Your task to perform on an android device: add a contact in the contacts app Image 0: 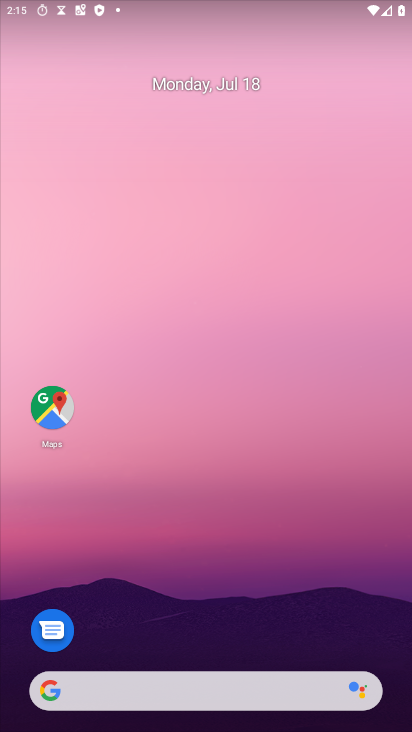
Step 0: drag from (277, 704) to (288, 263)
Your task to perform on an android device: add a contact in the contacts app Image 1: 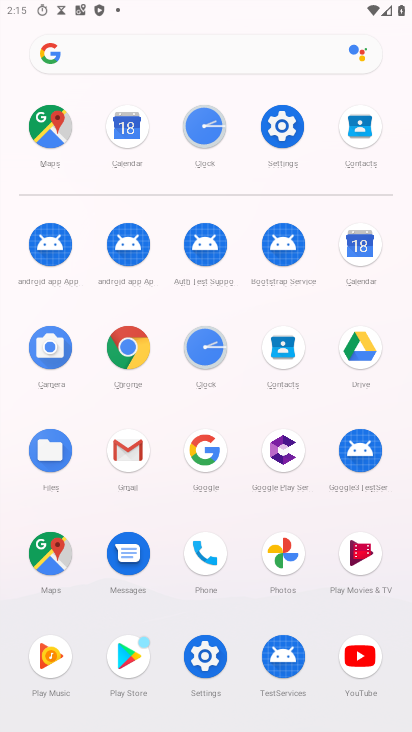
Step 1: click (282, 351)
Your task to perform on an android device: add a contact in the contacts app Image 2: 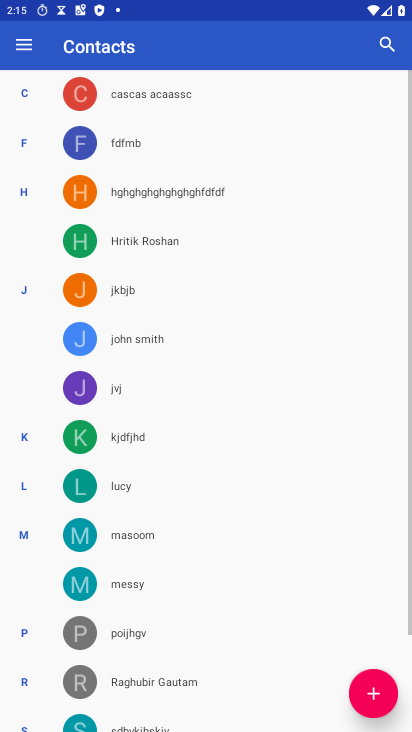
Step 2: click (380, 688)
Your task to perform on an android device: add a contact in the contacts app Image 3: 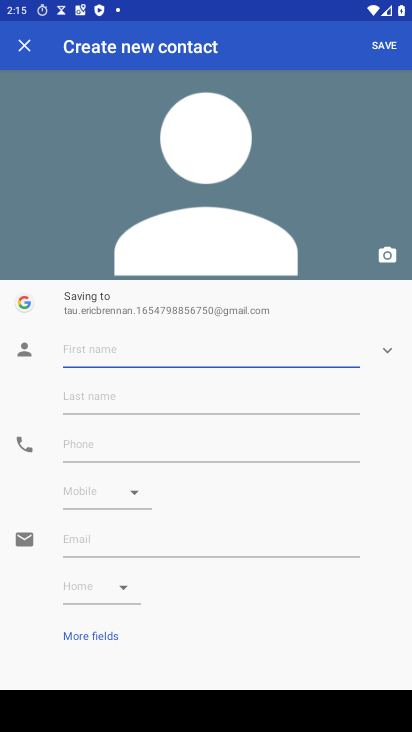
Step 3: type "roshan"
Your task to perform on an android device: add a contact in the contacts app Image 4: 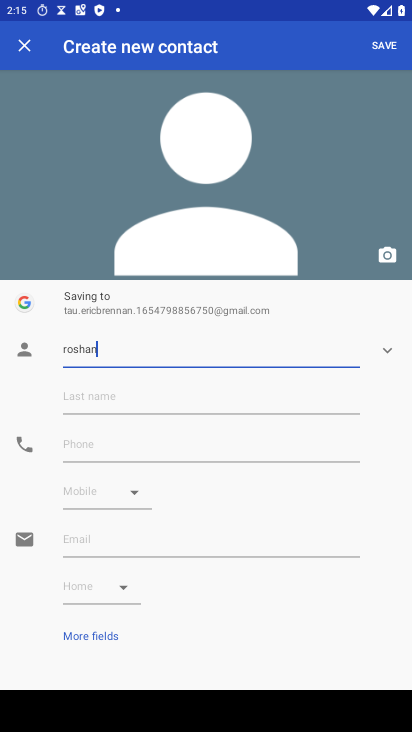
Step 4: click (104, 448)
Your task to perform on an android device: add a contact in the contacts app Image 5: 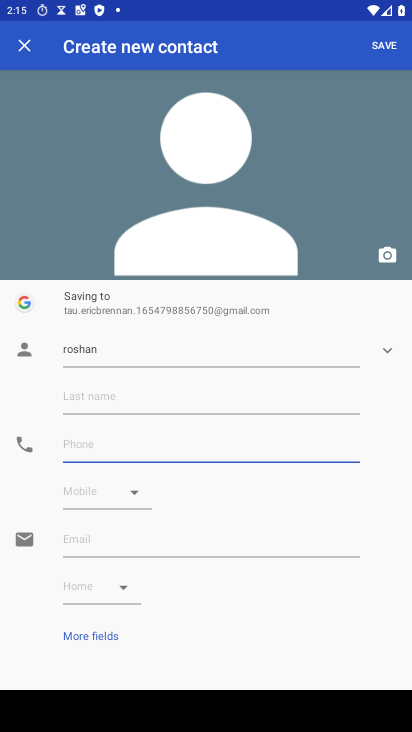
Step 5: type "989766543"
Your task to perform on an android device: add a contact in the contacts app Image 6: 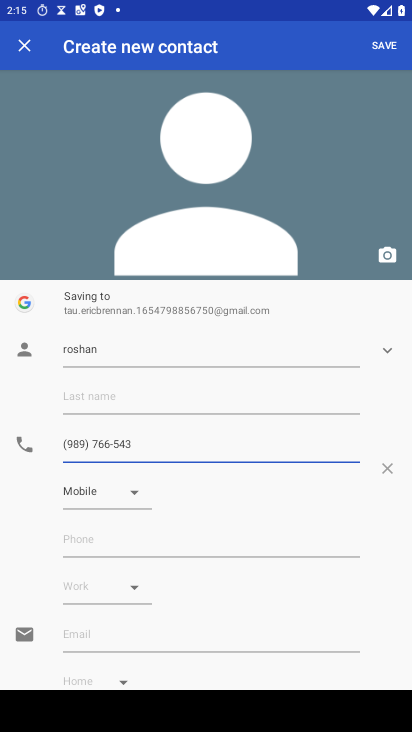
Step 6: click (385, 47)
Your task to perform on an android device: add a contact in the contacts app Image 7: 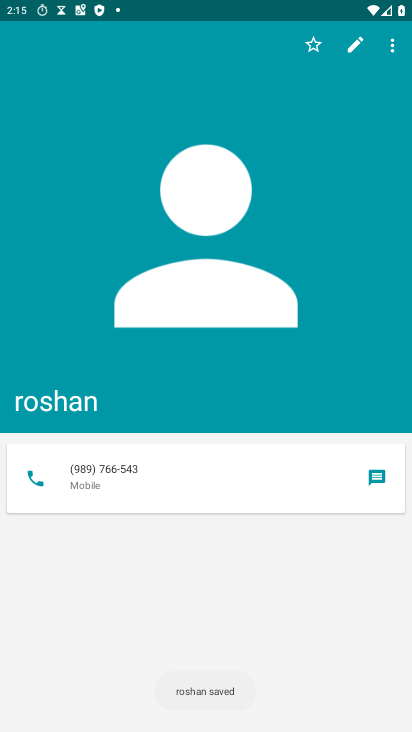
Step 7: task complete